Your task to perform on an android device: Open Wikipedia Image 0: 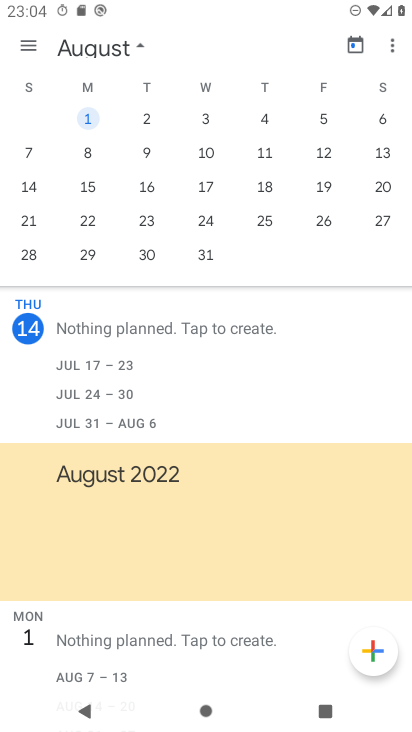
Step 0: press home button
Your task to perform on an android device: Open Wikipedia Image 1: 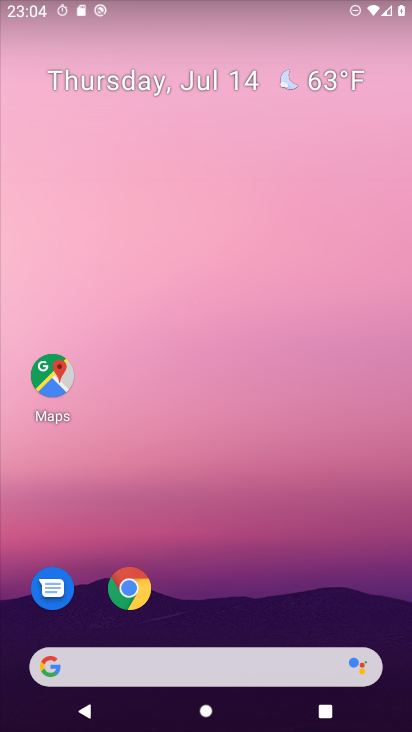
Step 1: drag from (320, 533) to (345, 43)
Your task to perform on an android device: Open Wikipedia Image 2: 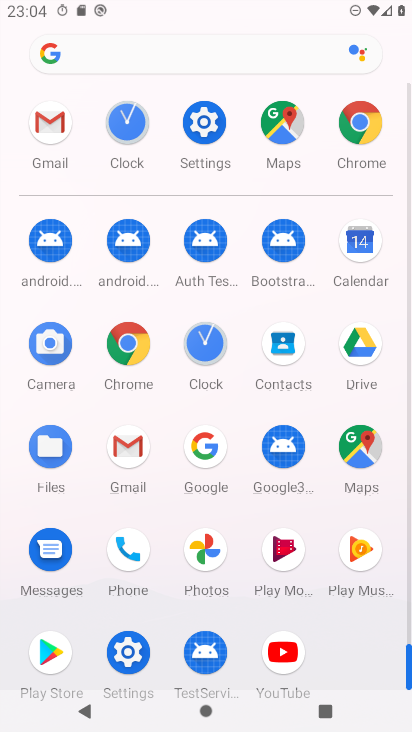
Step 2: click (135, 344)
Your task to perform on an android device: Open Wikipedia Image 3: 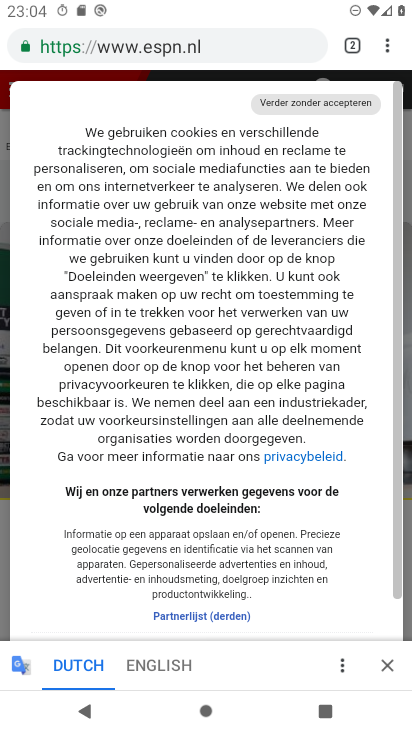
Step 3: click (199, 48)
Your task to perform on an android device: Open Wikipedia Image 4: 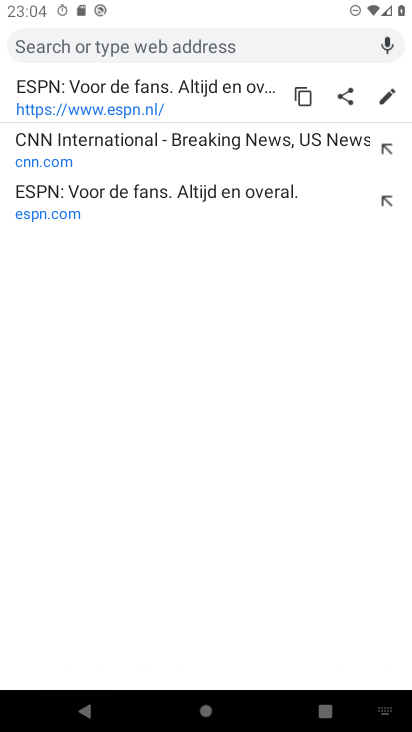
Step 4: type "wikipedia"
Your task to perform on an android device: Open Wikipedia Image 5: 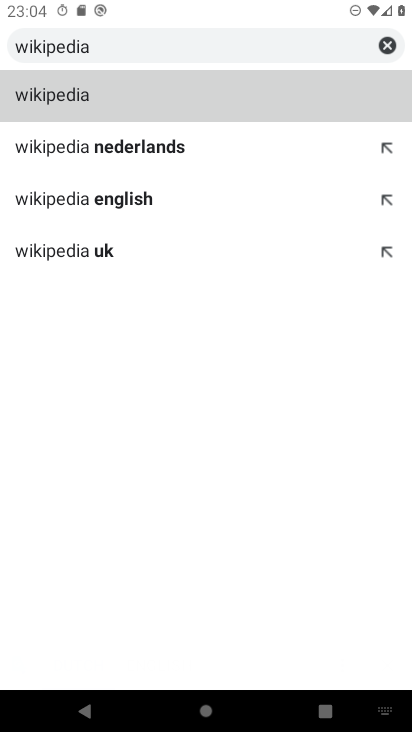
Step 5: click (249, 100)
Your task to perform on an android device: Open Wikipedia Image 6: 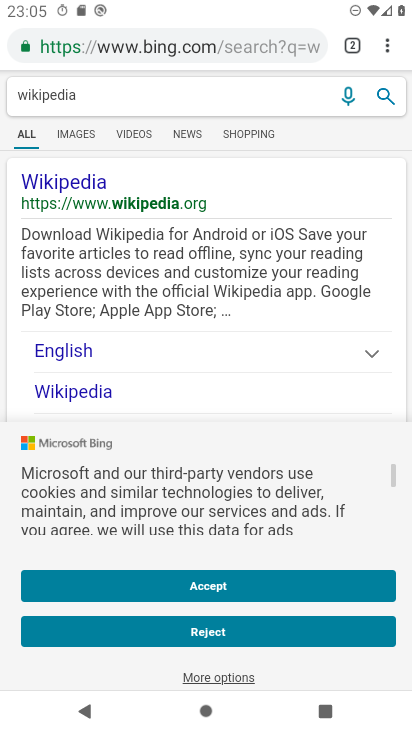
Step 6: task complete